Your task to perform on an android device: Go to Wikipedia Image 0: 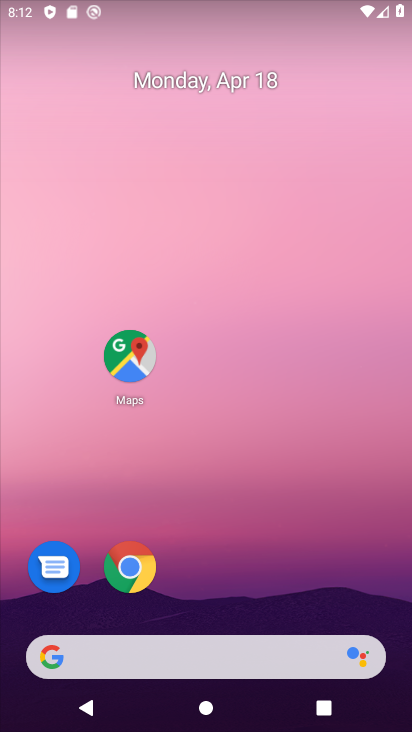
Step 0: drag from (270, 681) to (411, 183)
Your task to perform on an android device: Go to Wikipedia Image 1: 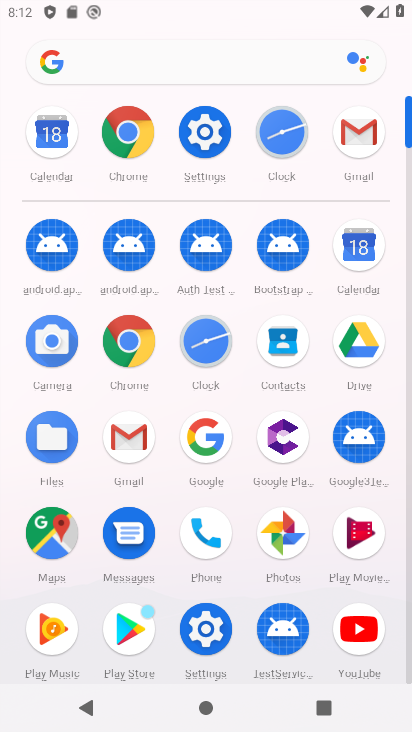
Step 1: click (132, 138)
Your task to perform on an android device: Go to Wikipedia Image 2: 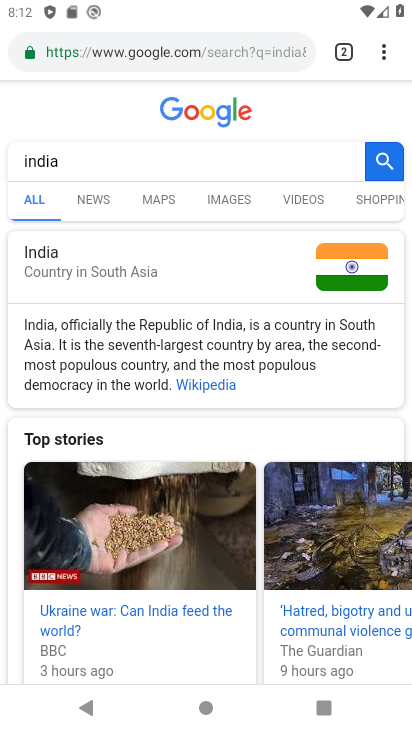
Step 2: click (352, 44)
Your task to perform on an android device: Go to Wikipedia Image 3: 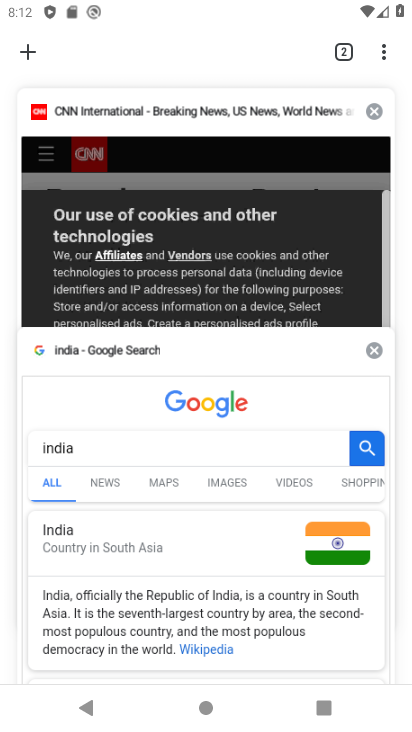
Step 3: click (28, 47)
Your task to perform on an android device: Go to Wikipedia Image 4: 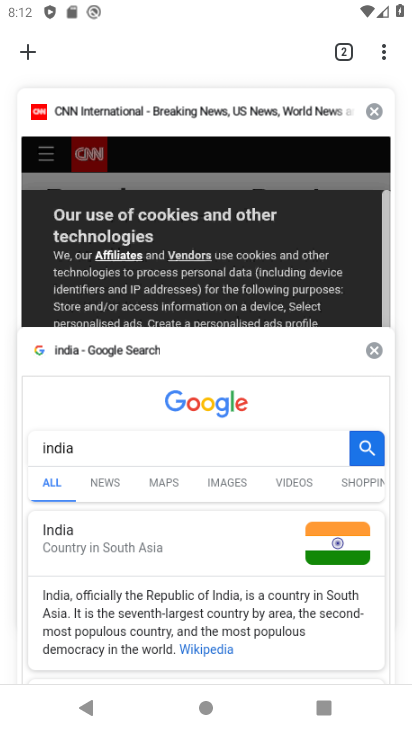
Step 4: click (174, 500)
Your task to perform on an android device: Go to Wikipedia Image 5: 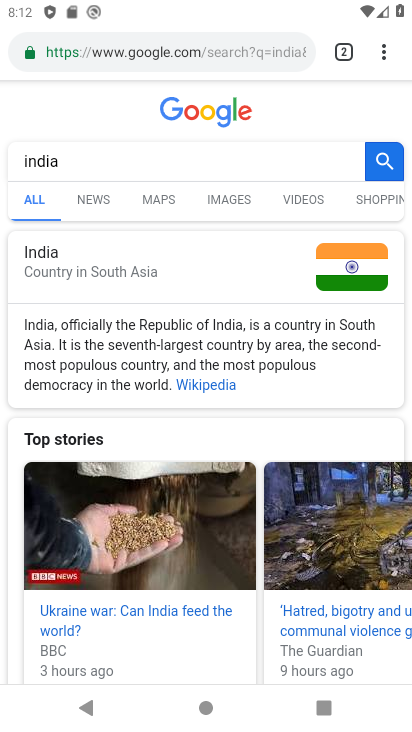
Step 5: click (338, 59)
Your task to perform on an android device: Go to Wikipedia Image 6: 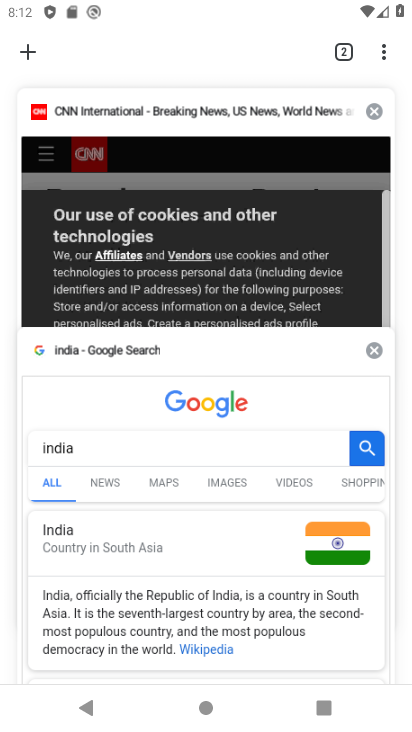
Step 6: click (30, 62)
Your task to perform on an android device: Go to Wikipedia Image 7: 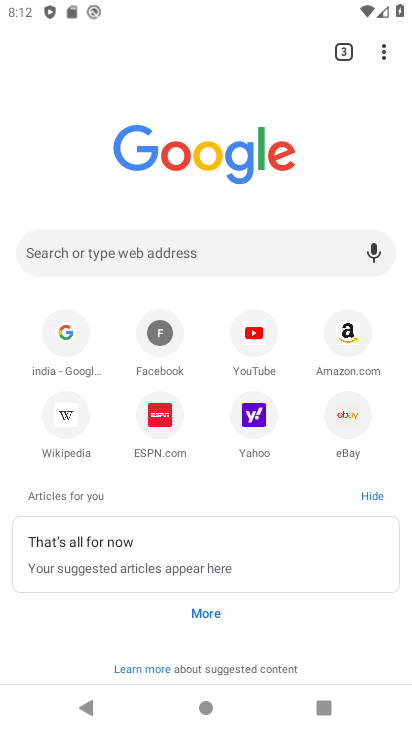
Step 7: click (120, 260)
Your task to perform on an android device: Go to Wikipedia Image 8: 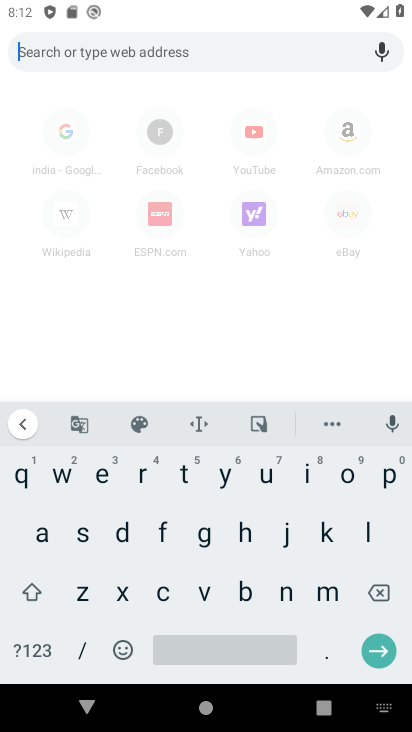
Step 8: click (54, 481)
Your task to perform on an android device: Go to Wikipedia Image 9: 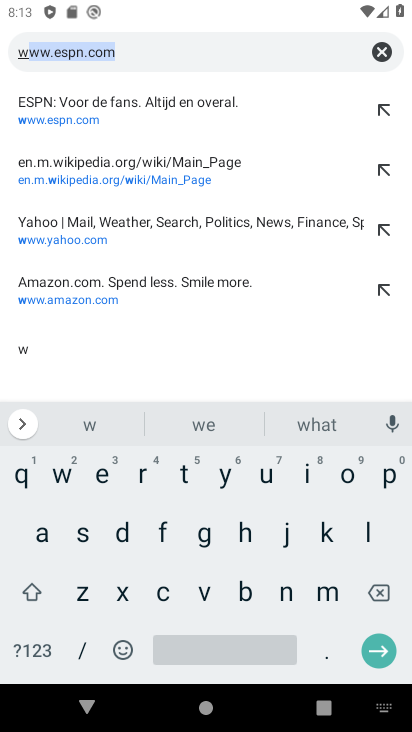
Step 9: click (308, 488)
Your task to perform on an android device: Go to Wikipedia Image 10: 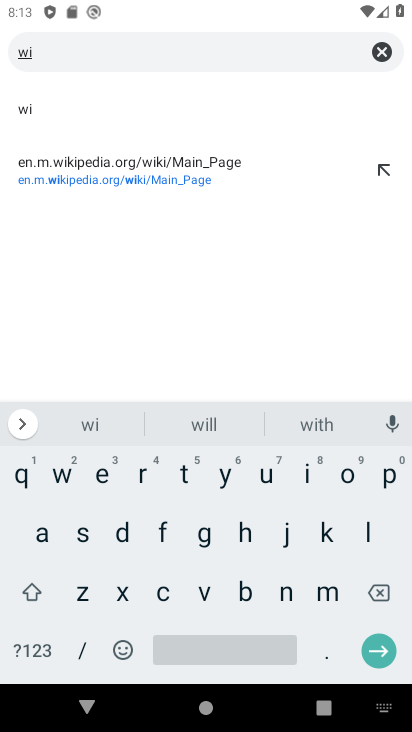
Step 10: click (329, 526)
Your task to perform on an android device: Go to Wikipedia Image 11: 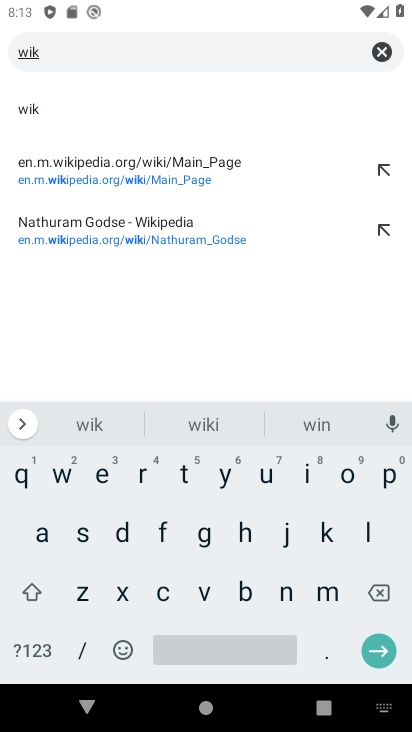
Step 11: click (158, 190)
Your task to perform on an android device: Go to Wikipedia Image 12: 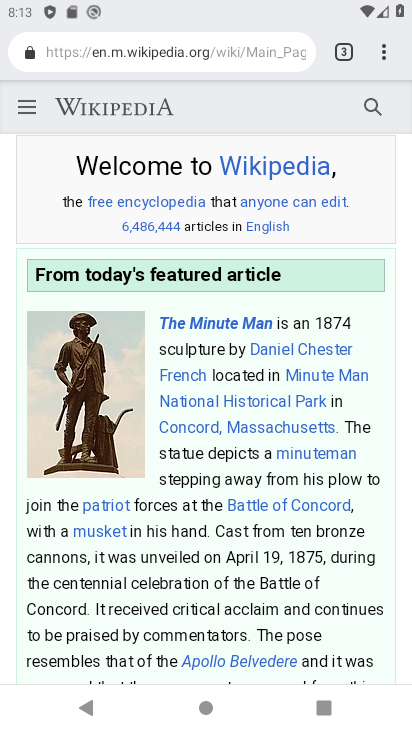
Step 12: task complete